Your task to perform on an android device: find which apps use the phone's location Image 0: 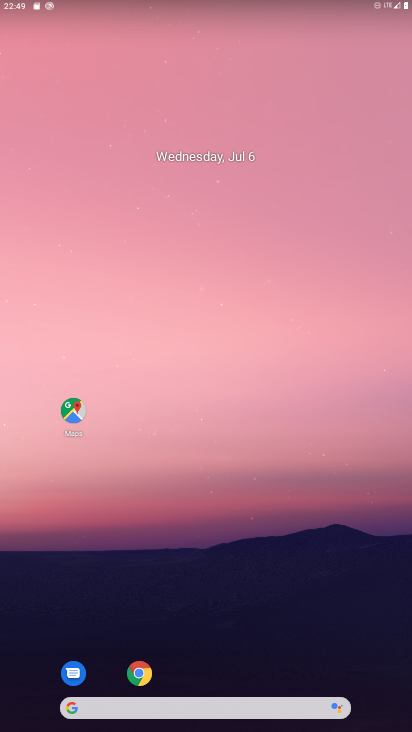
Step 0: drag from (290, 9) to (195, 647)
Your task to perform on an android device: find which apps use the phone's location Image 1: 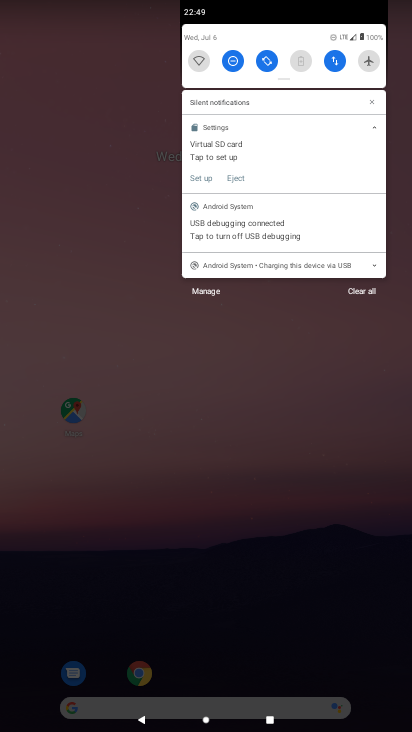
Step 1: click (332, 549)
Your task to perform on an android device: find which apps use the phone's location Image 2: 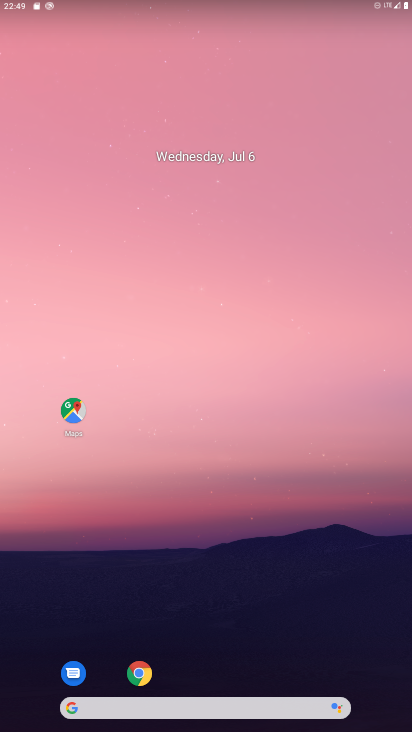
Step 2: drag from (127, 8) to (170, 716)
Your task to perform on an android device: find which apps use the phone's location Image 3: 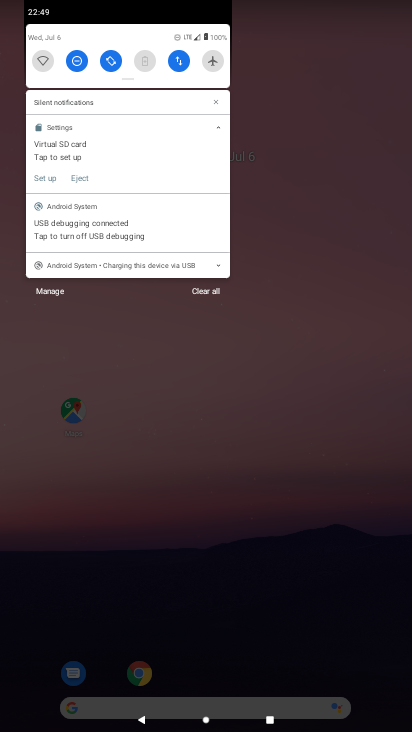
Step 3: click (137, 428)
Your task to perform on an android device: find which apps use the phone's location Image 4: 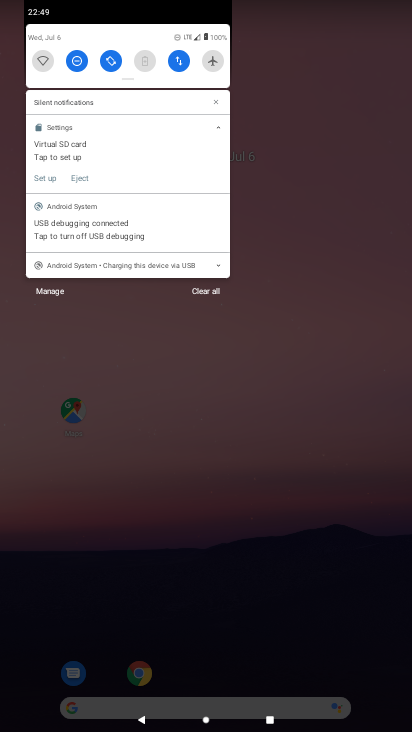
Step 4: drag from (139, 35) to (121, 395)
Your task to perform on an android device: find which apps use the phone's location Image 5: 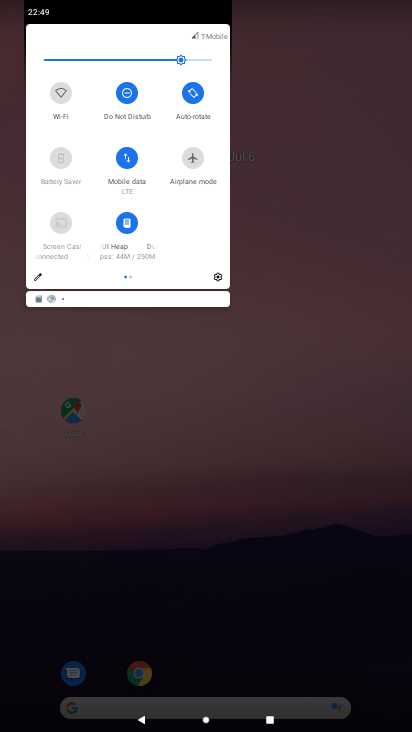
Step 5: click (218, 280)
Your task to perform on an android device: find which apps use the phone's location Image 6: 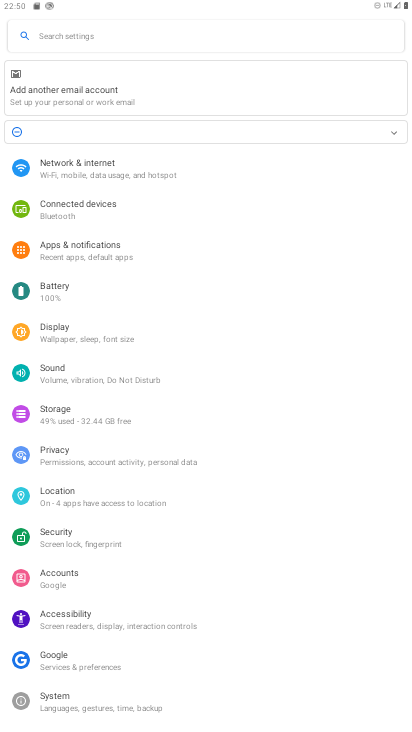
Step 6: click (98, 508)
Your task to perform on an android device: find which apps use the phone's location Image 7: 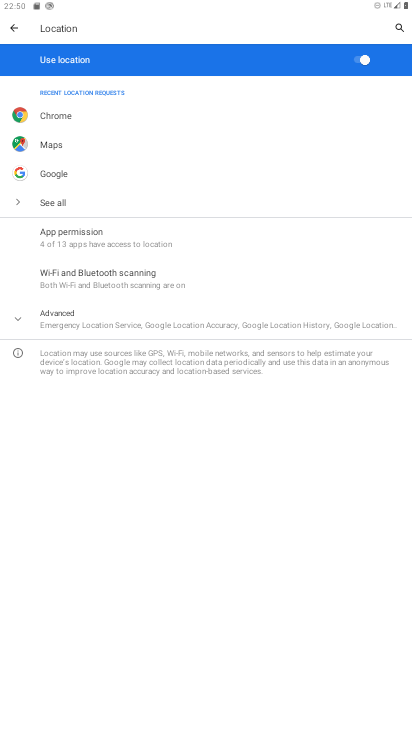
Step 7: click (50, 200)
Your task to perform on an android device: find which apps use the phone's location Image 8: 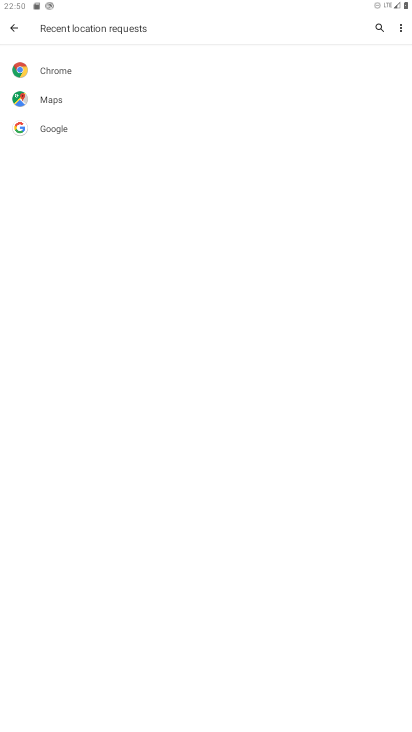
Step 8: task complete